Your task to perform on an android device: toggle airplane mode Image 0: 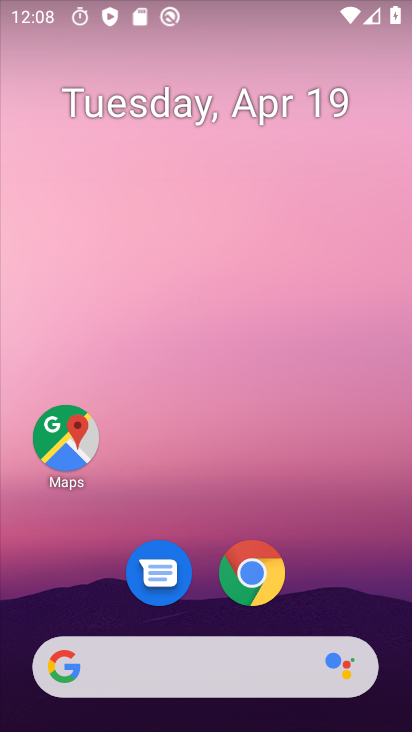
Step 0: drag from (315, 582) to (315, 183)
Your task to perform on an android device: toggle airplane mode Image 1: 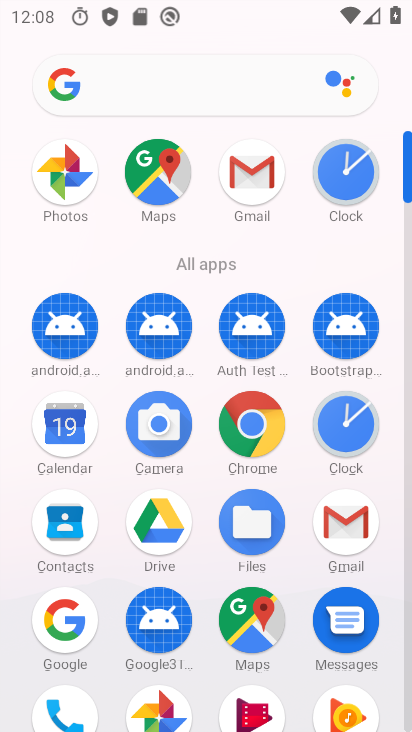
Step 1: drag from (299, 647) to (315, 338)
Your task to perform on an android device: toggle airplane mode Image 2: 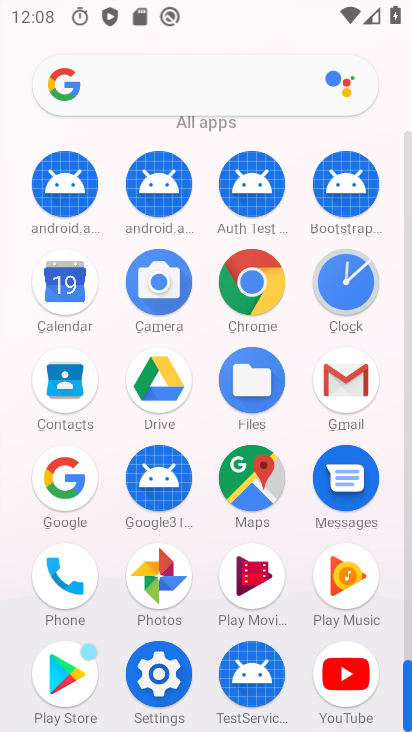
Step 2: click (173, 675)
Your task to perform on an android device: toggle airplane mode Image 3: 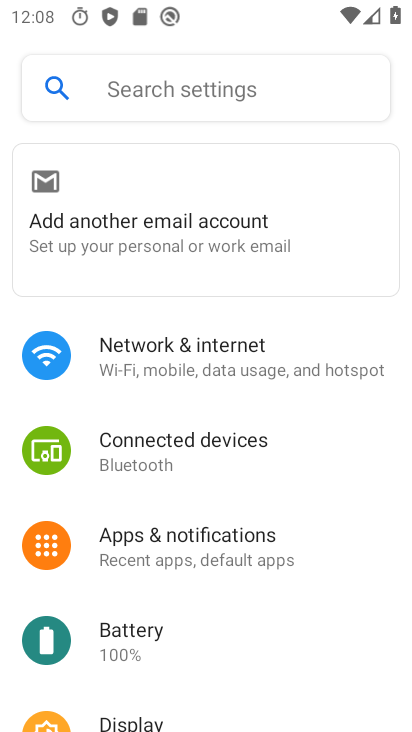
Step 3: click (167, 374)
Your task to perform on an android device: toggle airplane mode Image 4: 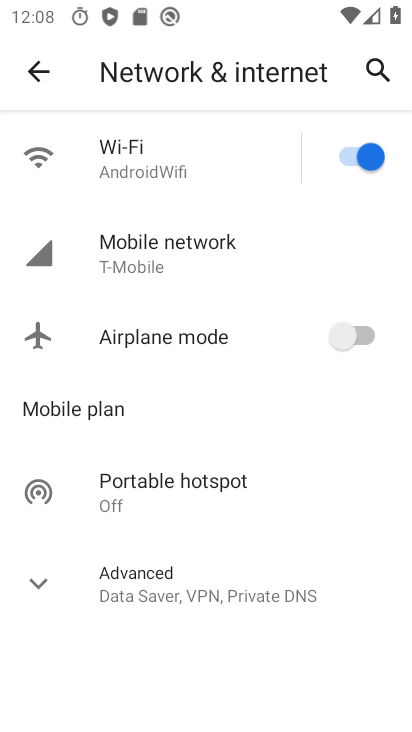
Step 4: click (355, 340)
Your task to perform on an android device: toggle airplane mode Image 5: 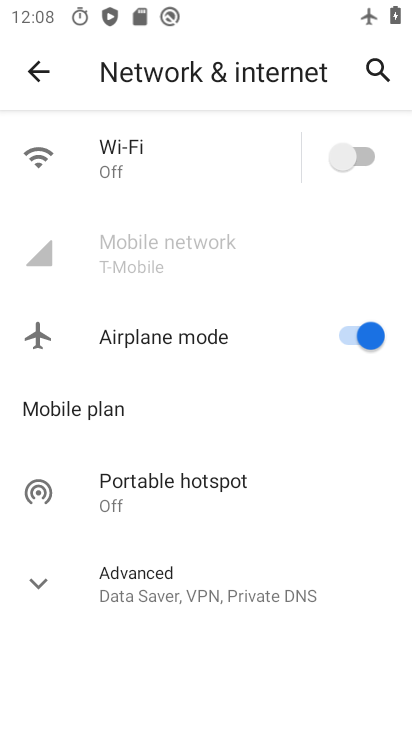
Step 5: task complete